Your task to perform on an android device: Open calendar and show me the fourth week of next month Image 0: 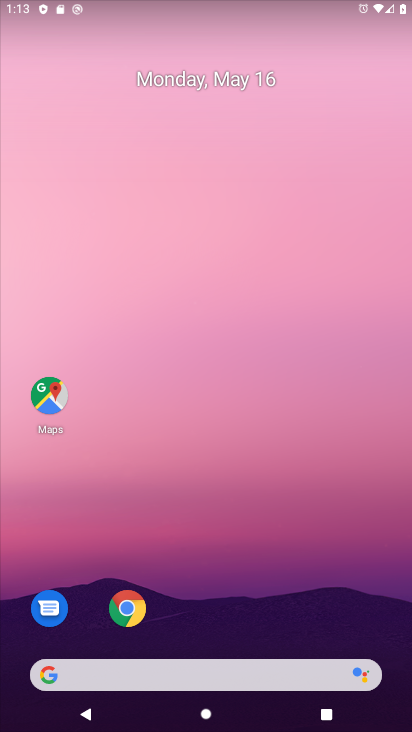
Step 0: drag from (237, 577) to (232, 134)
Your task to perform on an android device: Open calendar and show me the fourth week of next month Image 1: 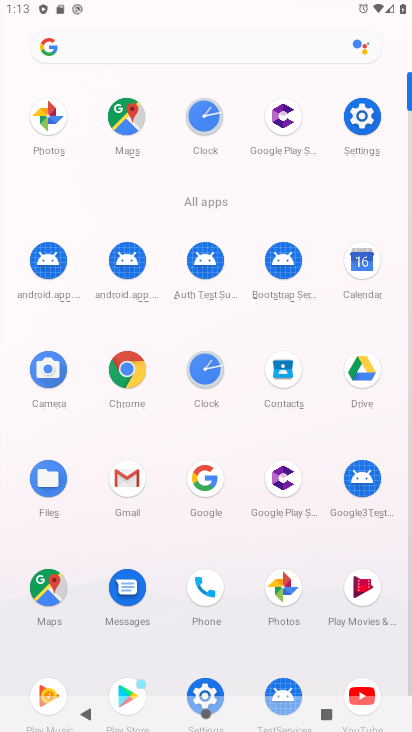
Step 1: click (350, 273)
Your task to perform on an android device: Open calendar and show me the fourth week of next month Image 2: 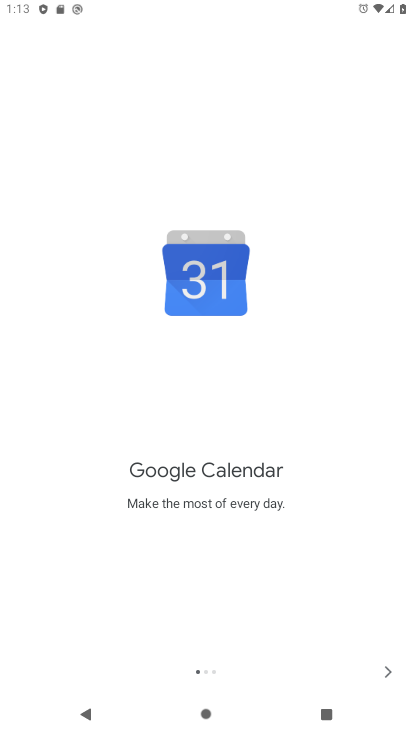
Step 2: click (369, 675)
Your task to perform on an android device: Open calendar and show me the fourth week of next month Image 3: 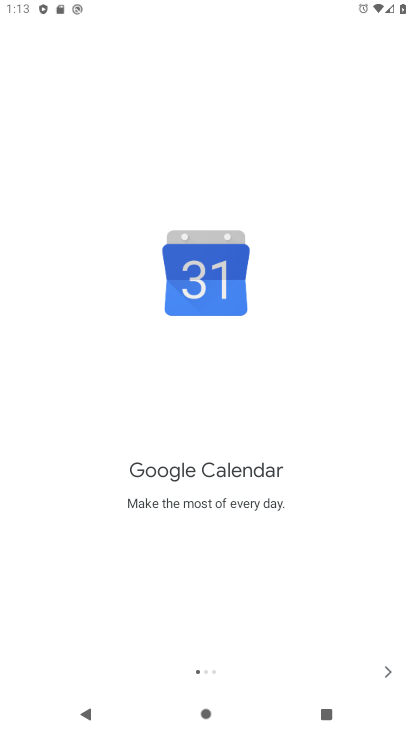
Step 3: click (383, 672)
Your task to perform on an android device: Open calendar and show me the fourth week of next month Image 4: 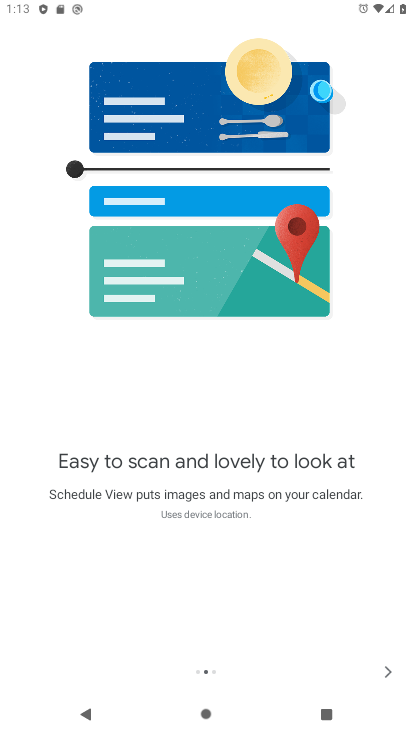
Step 4: click (383, 672)
Your task to perform on an android device: Open calendar and show me the fourth week of next month Image 5: 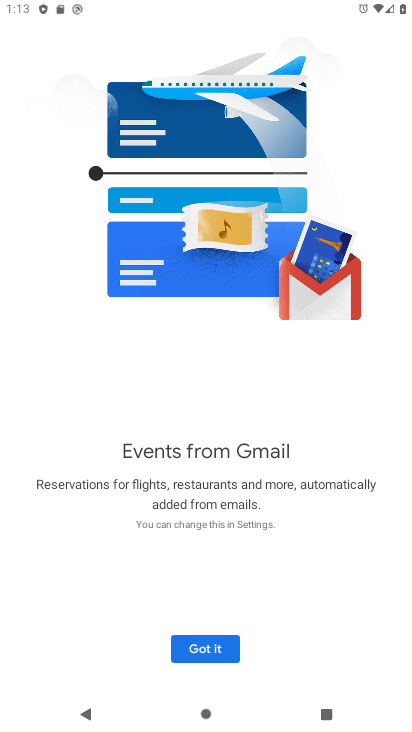
Step 5: click (209, 648)
Your task to perform on an android device: Open calendar and show me the fourth week of next month Image 6: 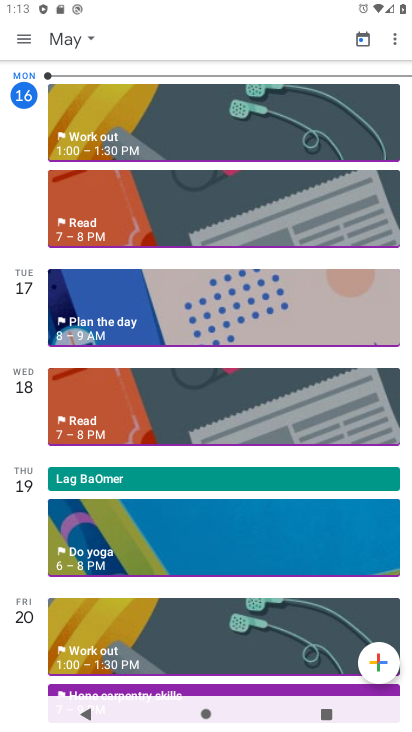
Step 6: click (84, 46)
Your task to perform on an android device: Open calendar and show me the fourth week of next month Image 7: 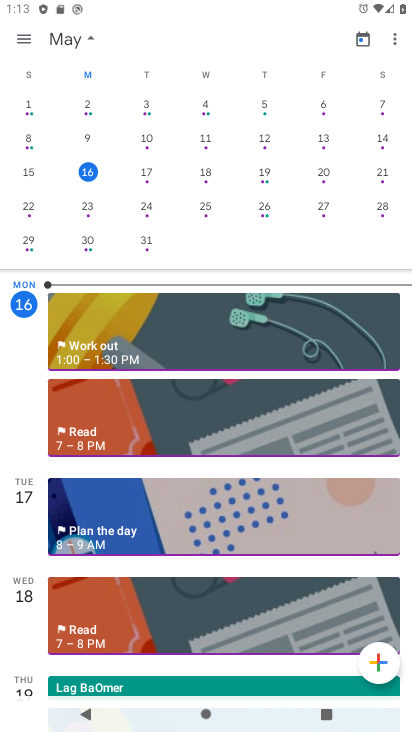
Step 7: drag from (333, 195) to (0, 230)
Your task to perform on an android device: Open calendar and show me the fourth week of next month Image 8: 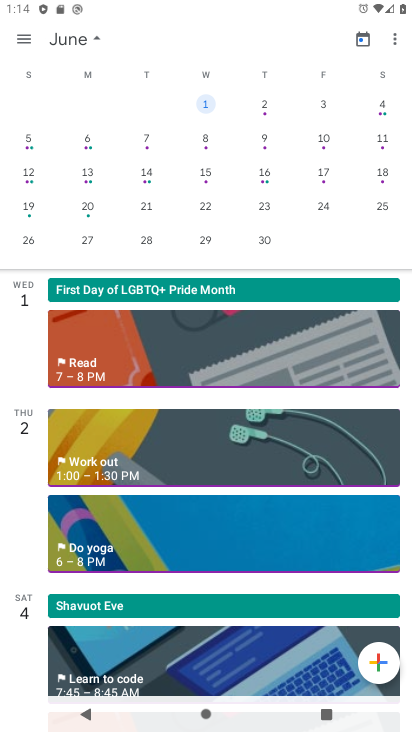
Step 8: click (29, 207)
Your task to perform on an android device: Open calendar and show me the fourth week of next month Image 9: 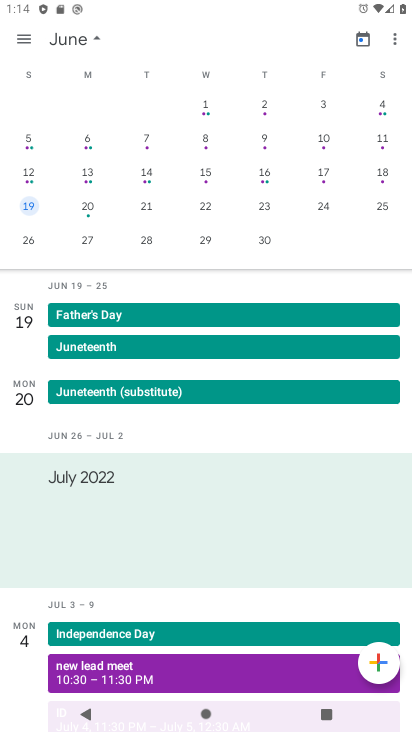
Step 9: click (92, 214)
Your task to perform on an android device: Open calendar and show me the fourth week of next month Image 10: 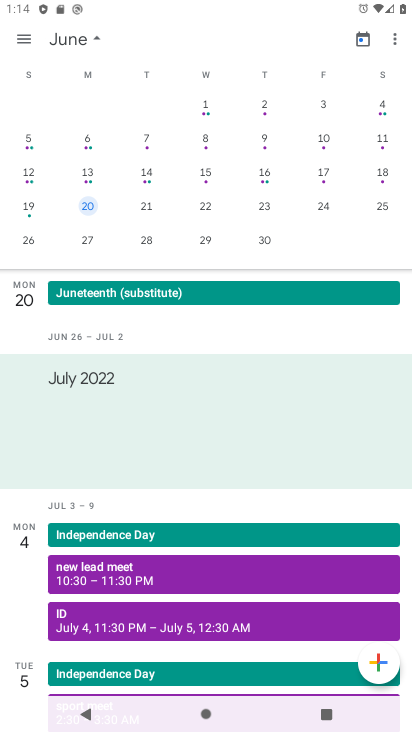
Step 10: click (152, 206)
Your task to perform on an android device: Open calendar and show me the fourth week of next month Image 11: 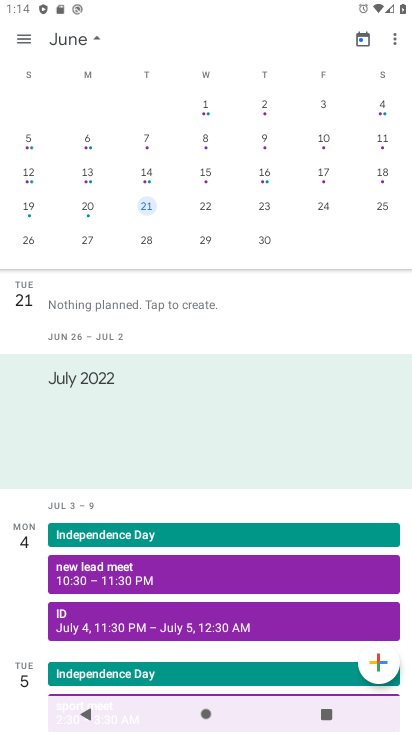
Step 11: click (212, 210)
Your task to perform on an android device: Open calendar and show me the fourth week of next month Image 12: 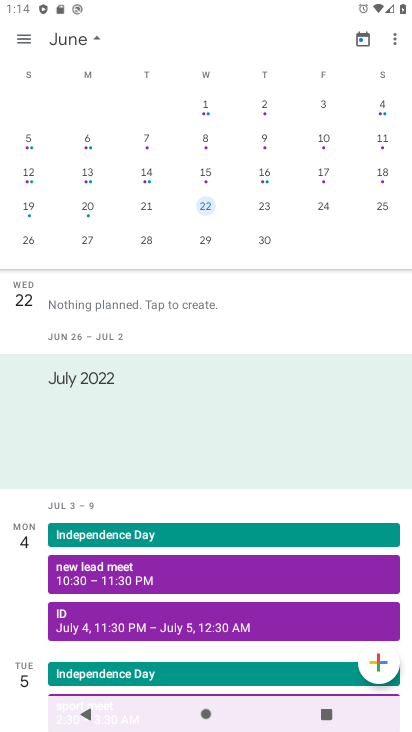
Step 12: click (274, 203)
Your task to perform on an android device: Open calendar and show me the fourth week of next month Image 13: 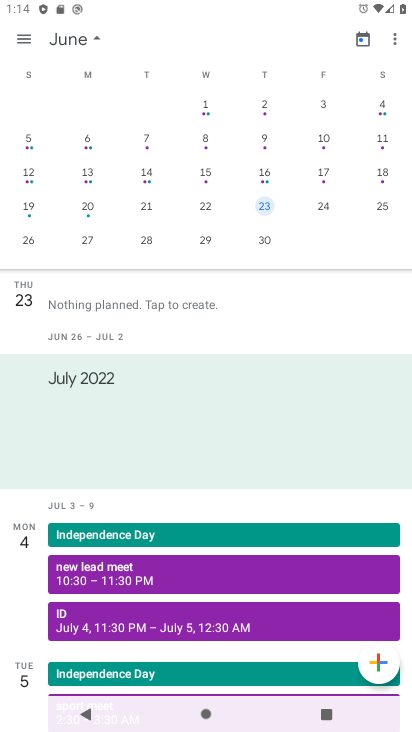
Step 13: click (325, 211)
Your task to perform on an android device: Open calendar and show me the fourth week of next month Image 14: 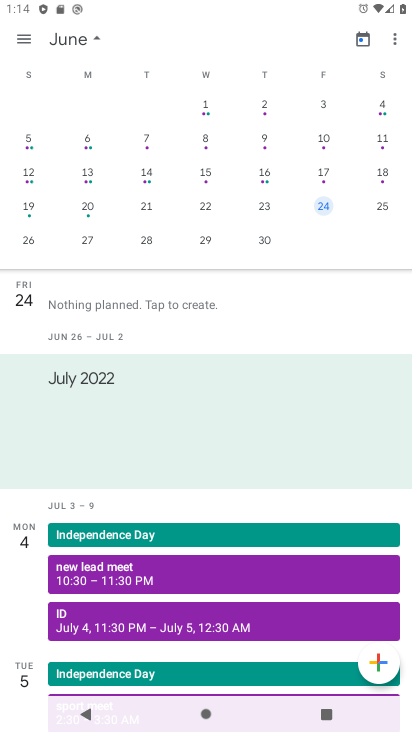
Step 14: click (383, 208)
Your task to perform on an android device: Open calendar and show me the fourth week of next month Image 15: 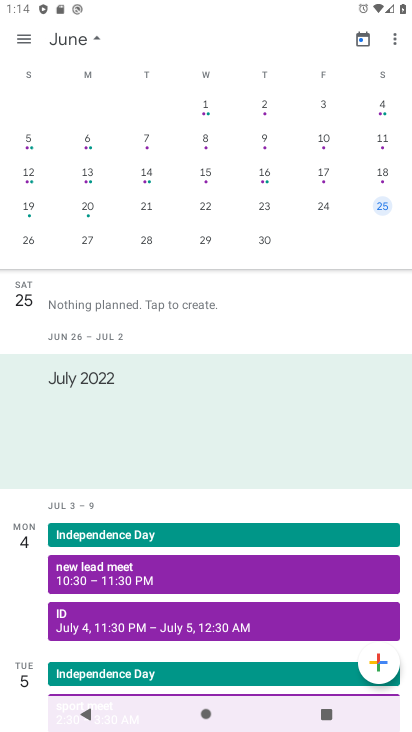
Step 15: task complete